Your task to perform on an android device: Open Google Maps Image 0: 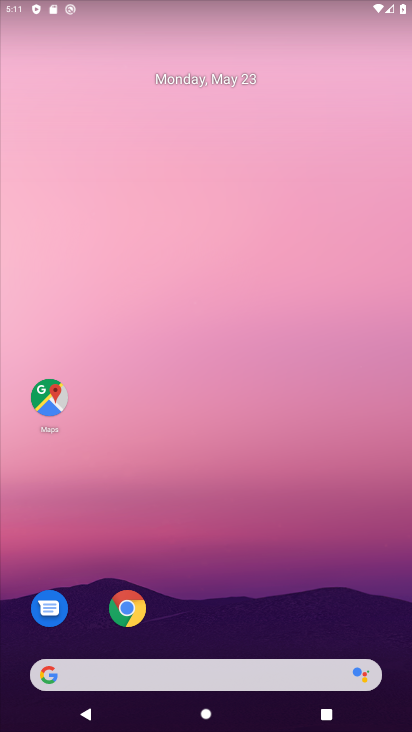
Step 0: click (47, 414)
Your task to perform on an android device: Open Google Maps Image 1: 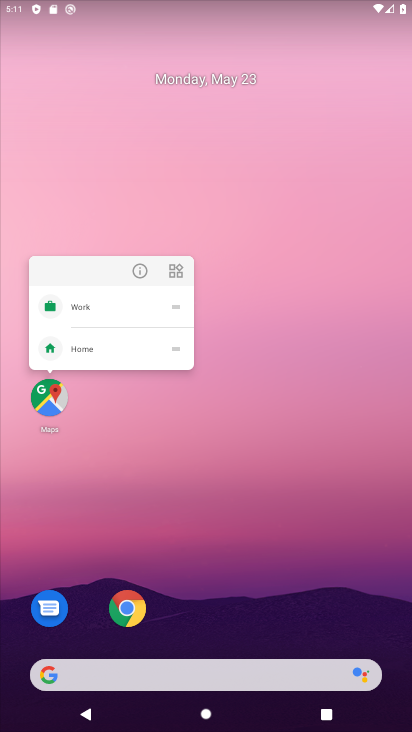
Step 1: click (44, 405)
Your task to perform on an android device: Open Google Maps Image 2: 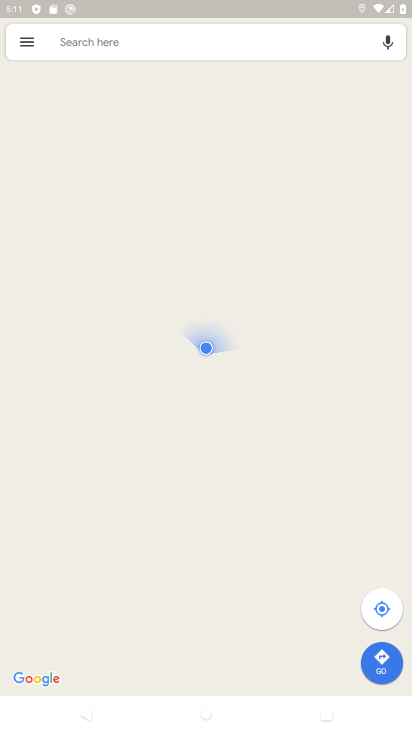
Step 2: task complete